Your task to perform on an android device: Go to notification settings Image 0: 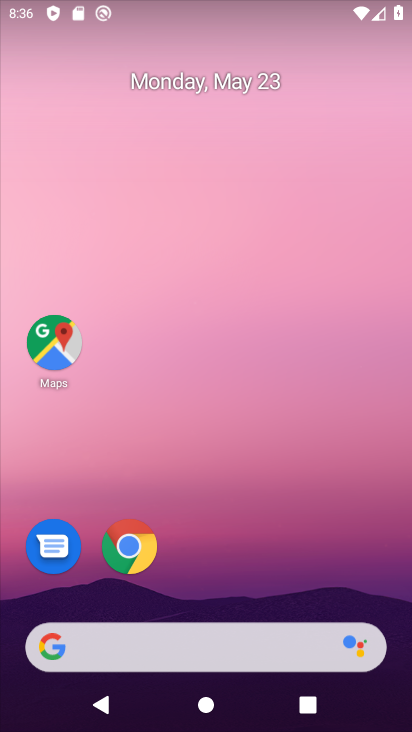
Step 0: drag from (307, 568) to (277, 89)
Your task to perform on an android device: Go to notification settings Image 1: 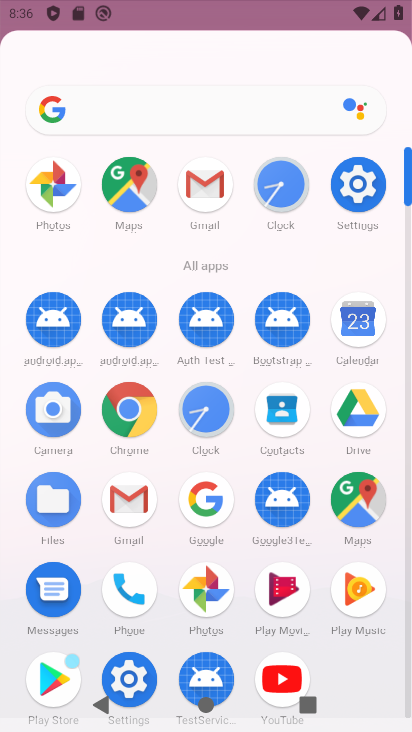
Step 1: drag from (233, 601) to (245, 400)
Your task to perform on an android device: Go to notification settings Image 2: 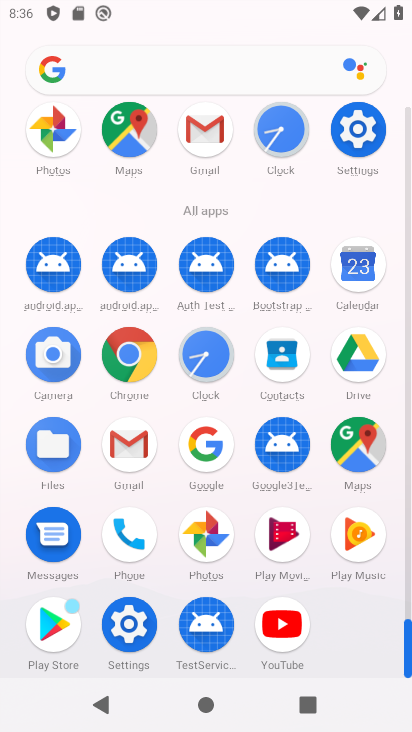
Step 2: click (125, 623)
Your task to perform on an android device: Go to notification settings Image 3: 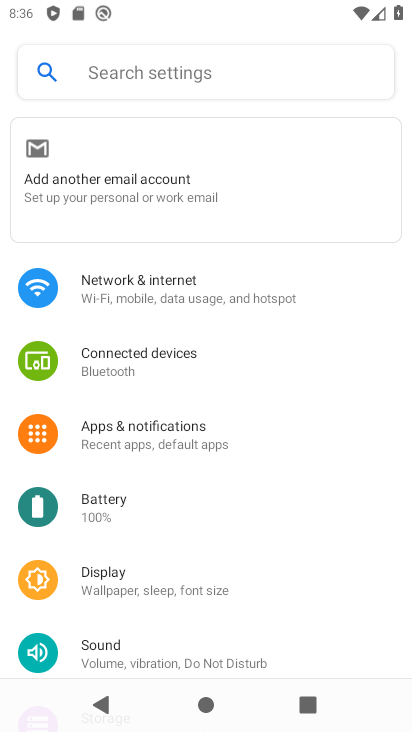
Step 3: click (129, 437)
Your task to perform on an android device: Go to notification settings Image 4: 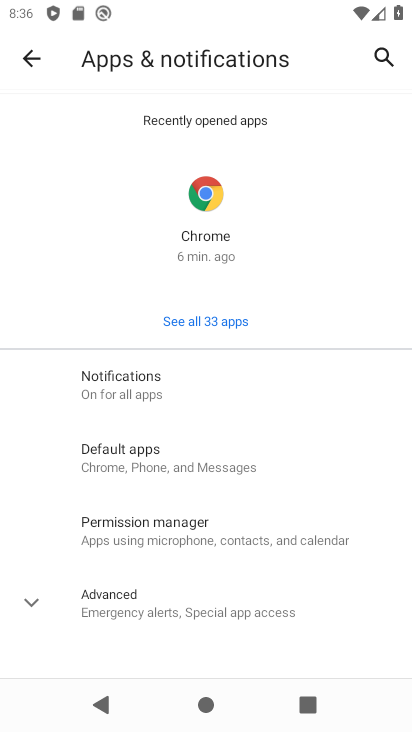
Step 4: click (134, 395)
Your task to perform on an android device: Go to notification settings Image 5: 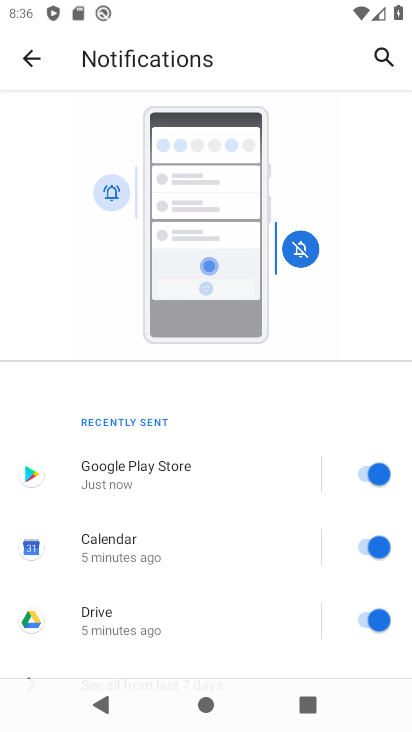
Step 5: task complete